Your task to perform on an android device: see tabs open on other devices in the chrome app Image 0: 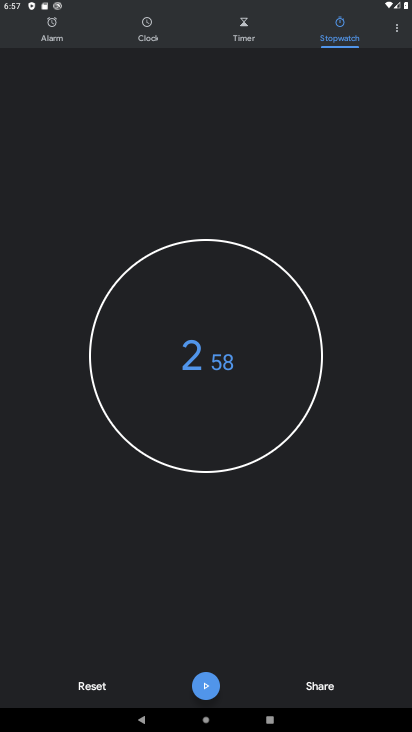
Step 0: press home button
Your task to perform on an android device: see tabs open on other devices in the chrome app Image 1: 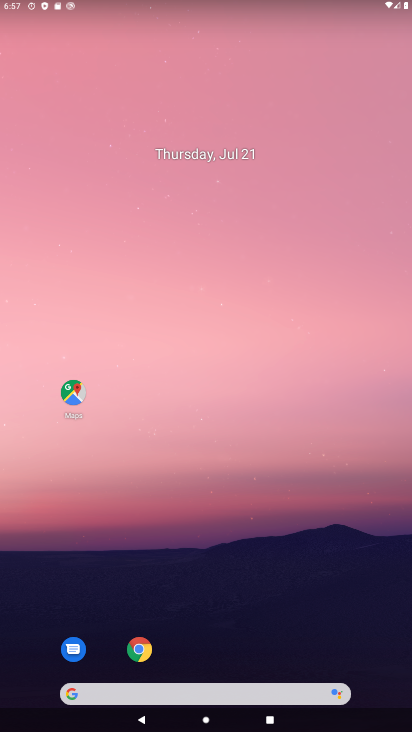
Step 1: click (141, 649)
Your task to perform on an android device: see tabs open on other devices in the chrome app Image 2: 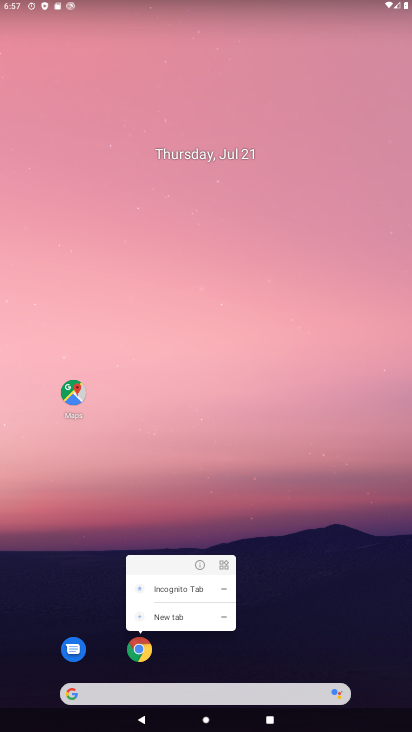
Step 2: click (142, 645)
Your task to perform on an android device: see tabs open on other devices in the chrome app Image 3: 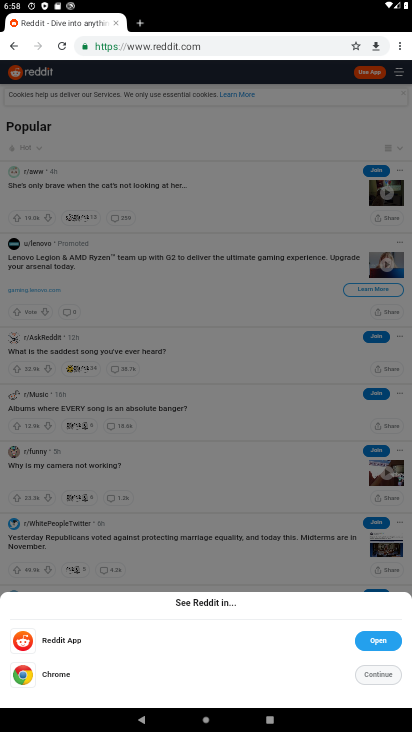
Step 3: click (143, 21)
Your task to perform on an android device: see tabs open on other devices in the chrome app Image 4: 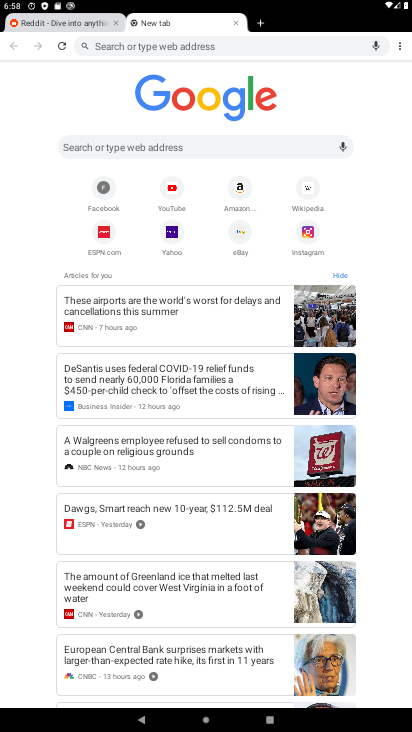
Step 4: task complete